Your task to perform on an android device: Open eBay Image 0: 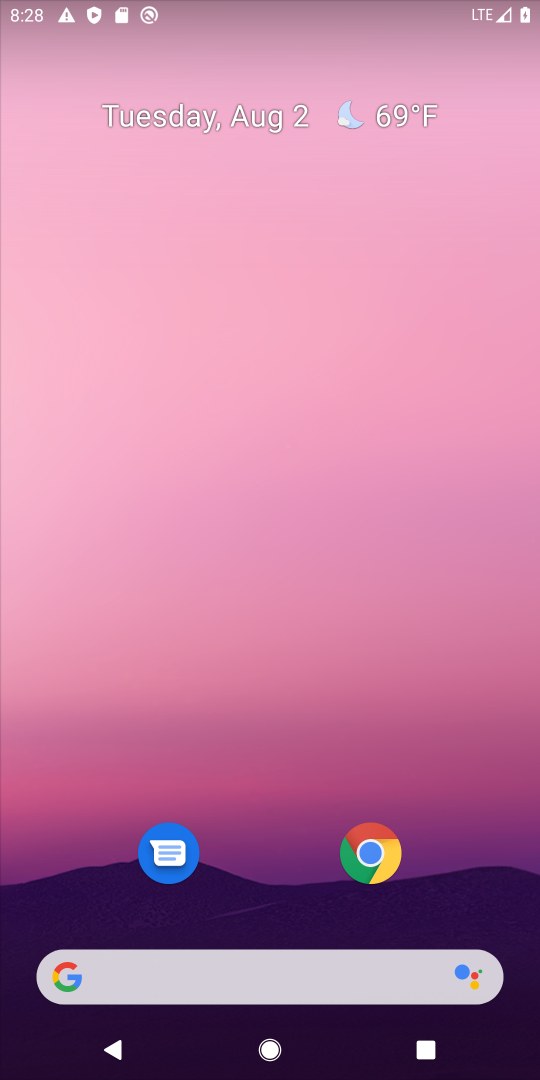
Step 0: click (386, 872)
Your task to perform on an android device: Open eBay Image 1: 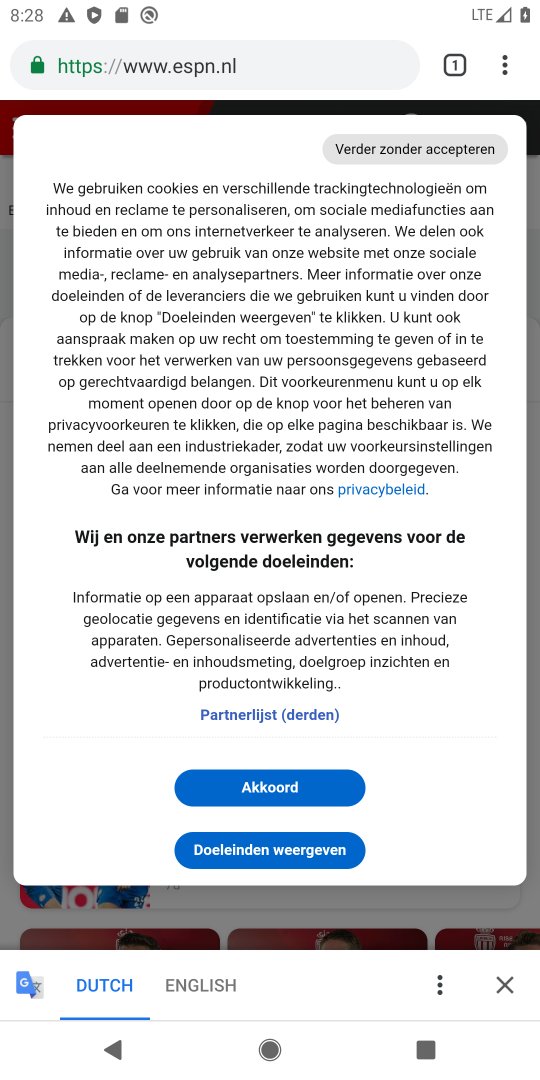
Step 1: click (454, 67)
Your task to perform on an android device: Open eBay Image 2: 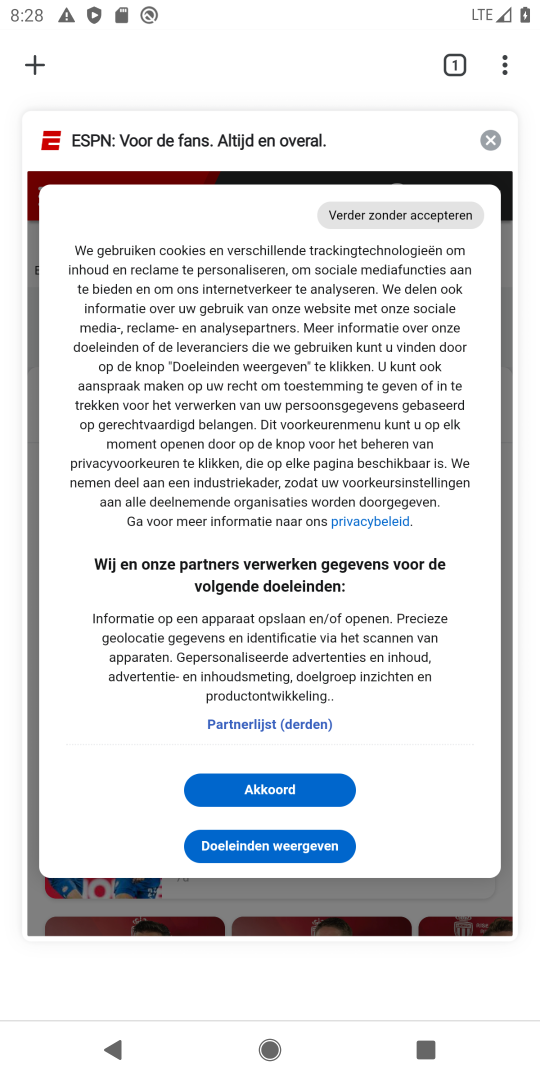
Step 2: click (31, 62)
Your task to perform on an android device: Open eBay Image 3: 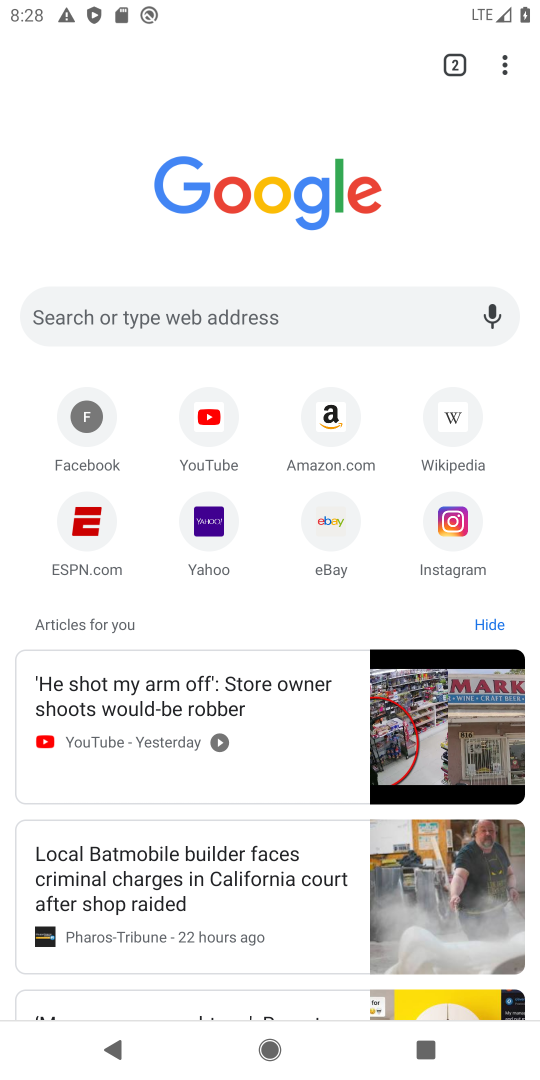
Step 3: click (314, 557)
Your task to perform on an android device: Open eBay Image 4: 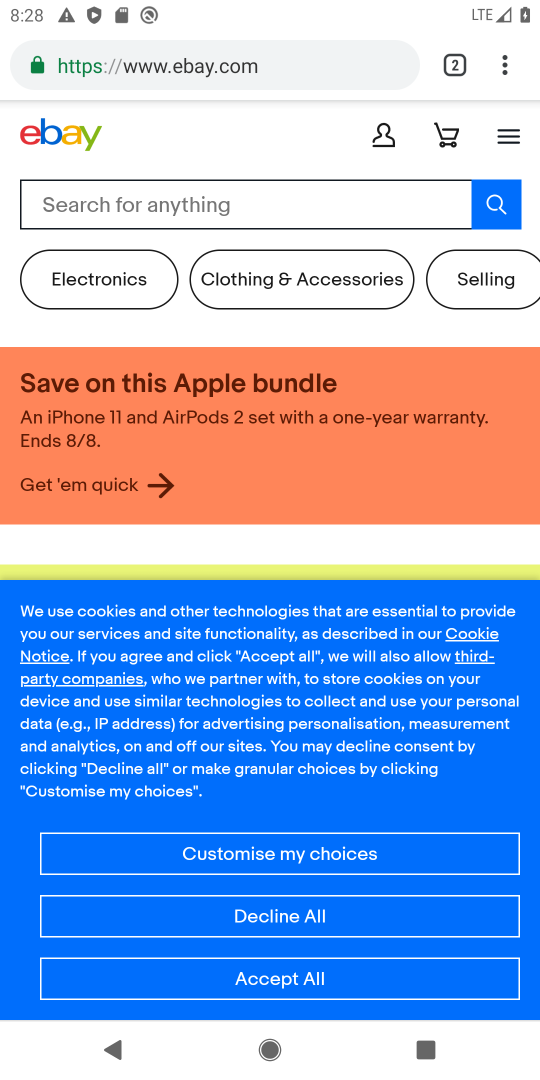
Step 4: task complete